Your task to perform on an android device: move a message to another label in the gmail app Image 0: 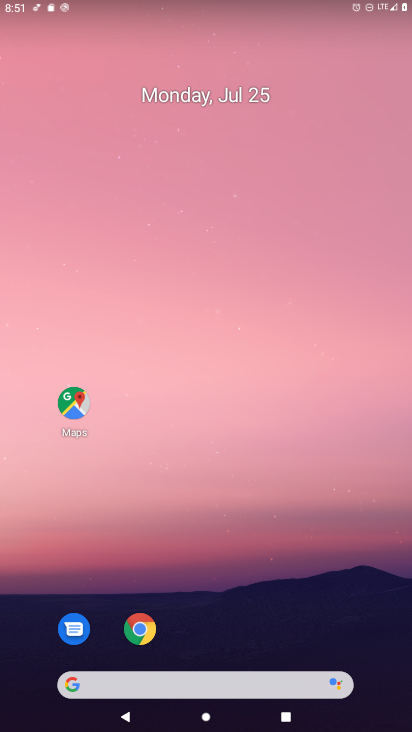
Step 0: drag from (179, 685) to (249, 36)
Your task to perform on an android device: move a message to another label in the gmail app Image 1: 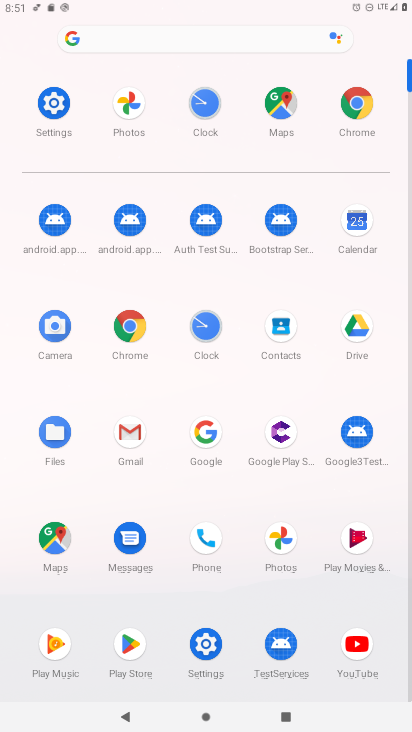
Step 1: click (129, 431)
Your task to perform on an android device: move a message to another label in the gmail app Image 2: 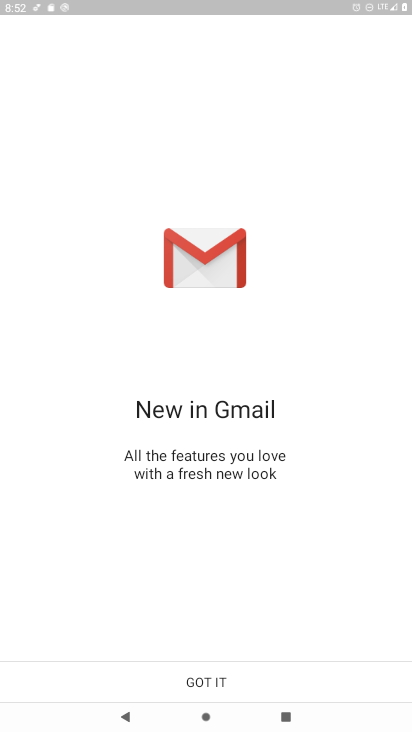
Step 2: click (204, 676)
Your task to perform on an android device: move a message to another label in the gmail app Image 3: 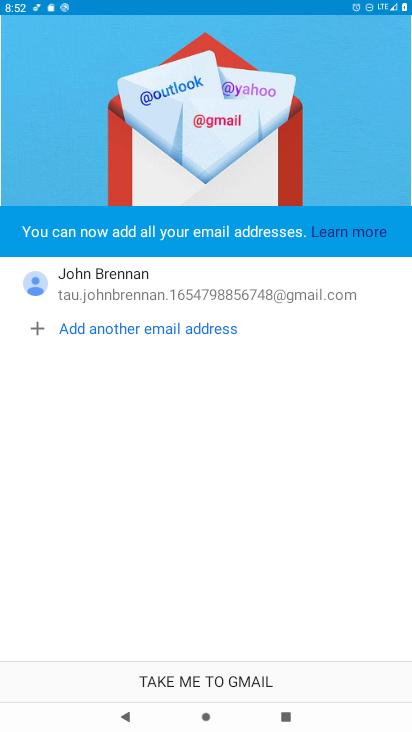
Step 3: click (204, 676)
Your task to perform on an android device: move a message to another label in the gmail app Image 4: 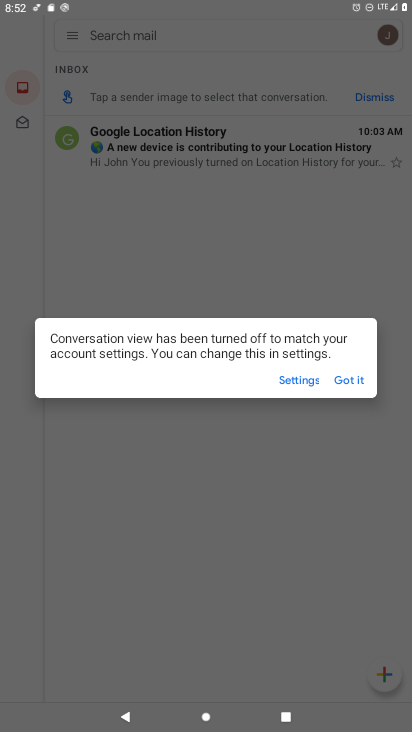
Step 4: click (344, 379)
Your task to perform on an android device: move a message to another label in the gmail app Image 5: 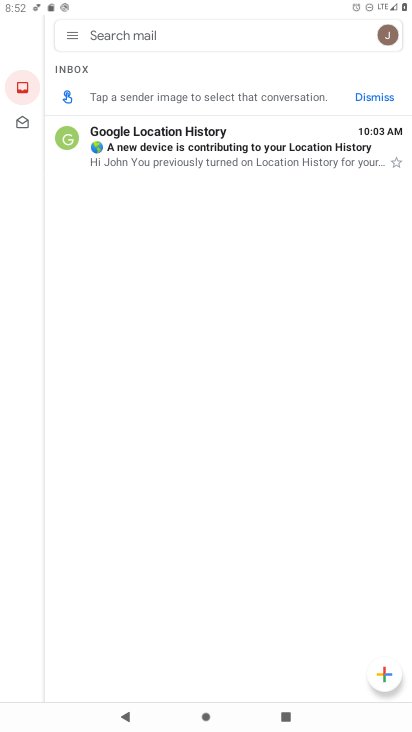
Step 5: click (252, 148)
Your task to perform on an android device: move a message to another label in the gmail app Image 6: 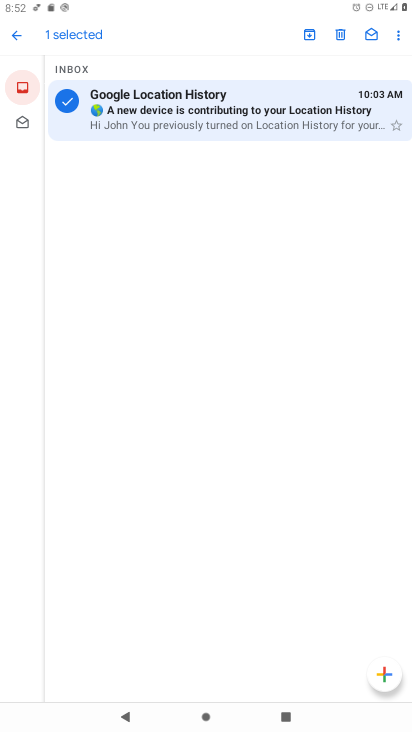
Step 6: click (396, 33)
Your task to perform on an android device: move a message to another label in the gmail app Image 7: 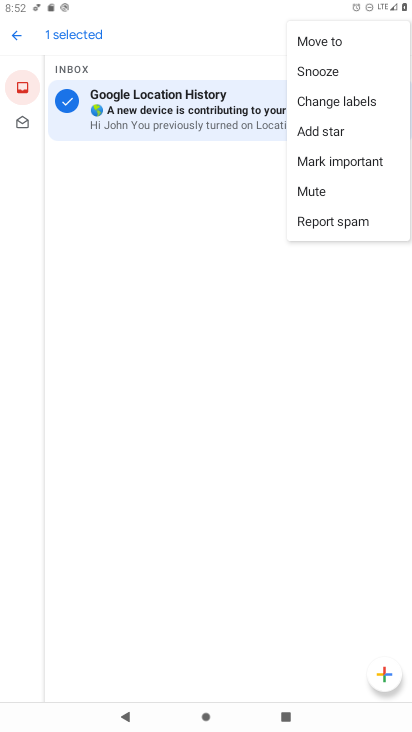
Step 7: click (355, 100)
Your task to perform on an android device: move a message to another label in the gmail app Image 8: 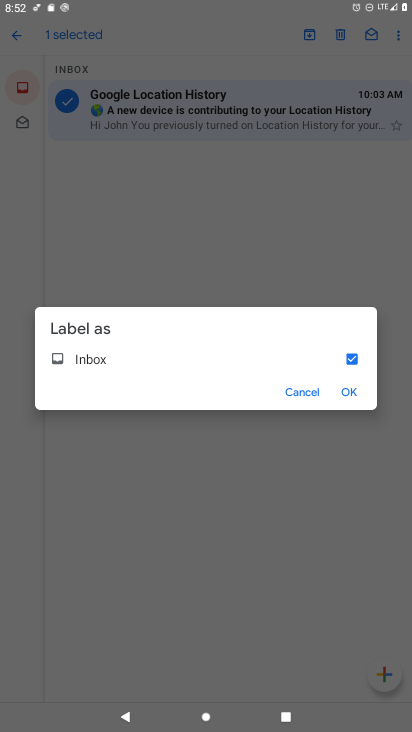
Step 8: click (359, 354)
Your task to perform on an android device: move a message to another label in the gmail app Image 9: 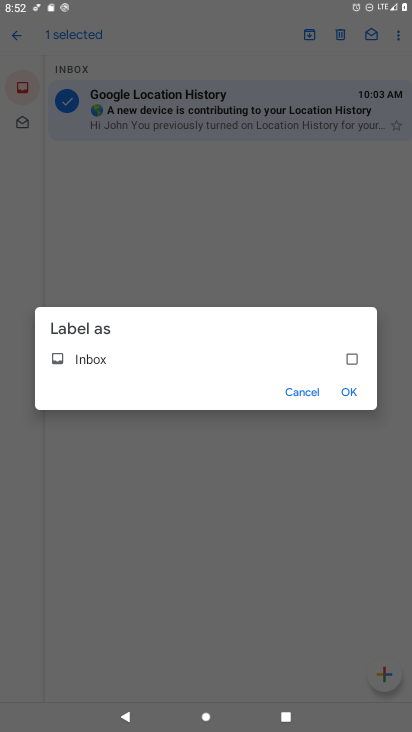
Step 9: click (350, 383)
Your task to perform on an android device: move a message to another label in the gmail app Image 10: 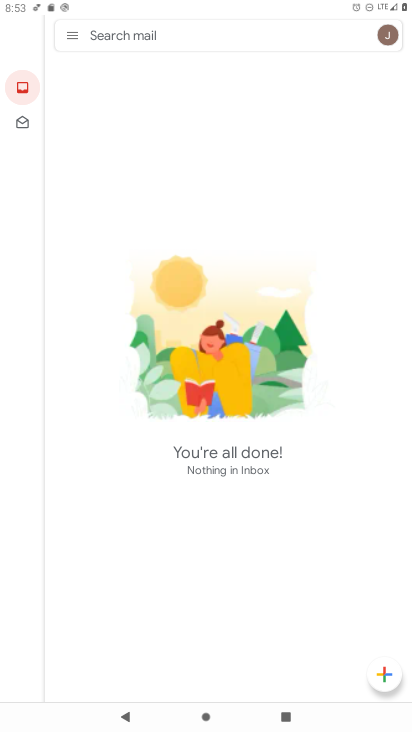
Step 10: task complete